Your task to perform on an android device: Open Chrome and go to the settings page Image 0: 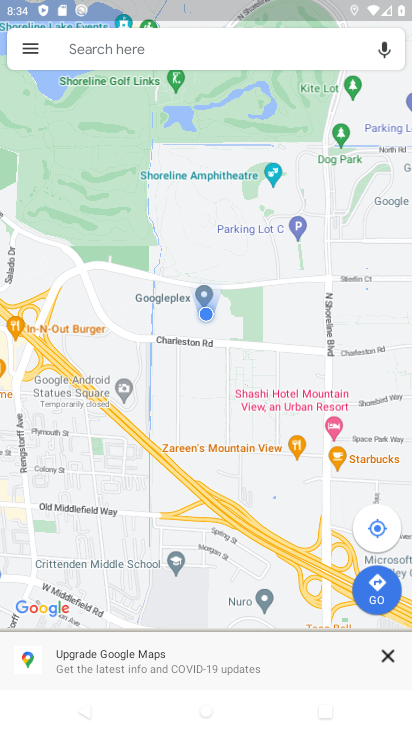
Step 0: drag from (278, 601) to (293, 425)
Your task to perform on an android device: Open Chrome and go to the settings page Image 1: 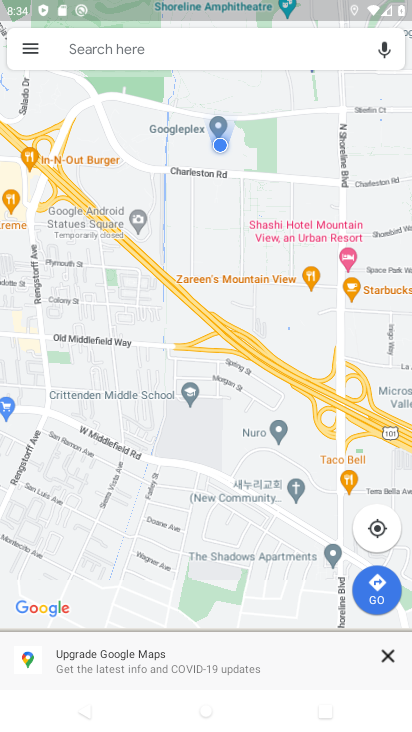
Step 1: press home button
Your task to perform on an android device: Open Chrome and go to the settings page Image 2: 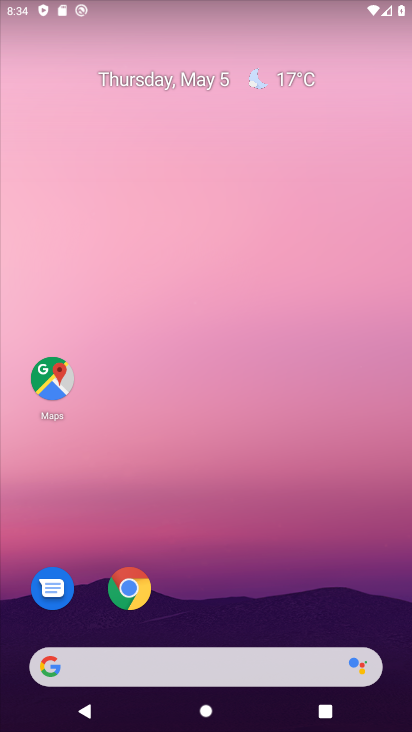
Step 2: click (115, 590)
Your task to perform on an android device: Open Chrome and go to the settings page Image 3: 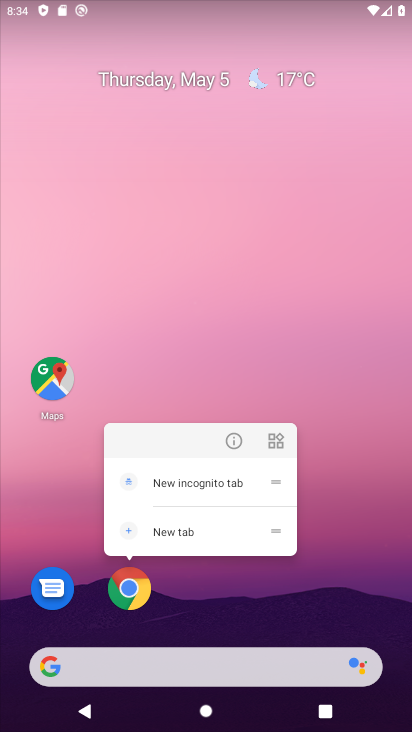
Step 3: click (232, 611)
Your task to perform on an android device: Open Chrome and go to the settings page Image 4: 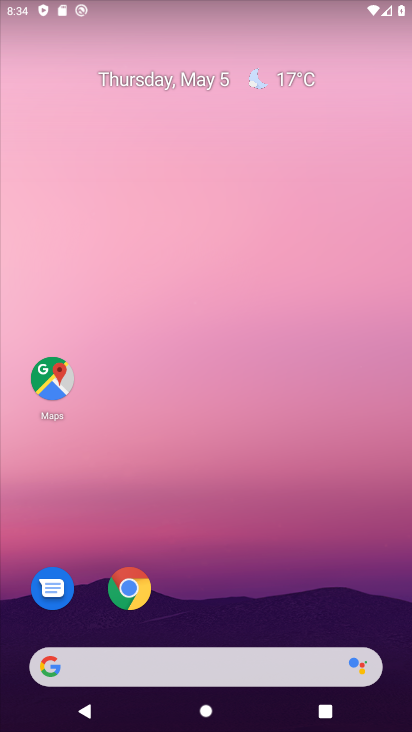
Step 4: drag from (265, 622) to (266, 216)
Your task to perform on an android device: Open Chrome and go to the settings page Image 5: 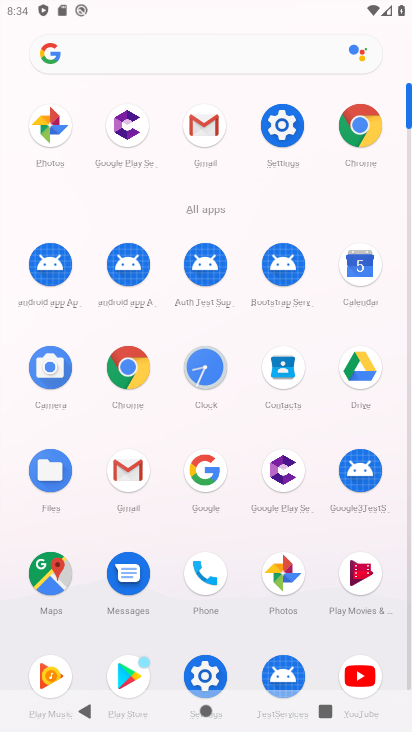
Step 5: click (134, 364)
Your task to perform on an android device: Open Chrome and go to the settings page Image 6: 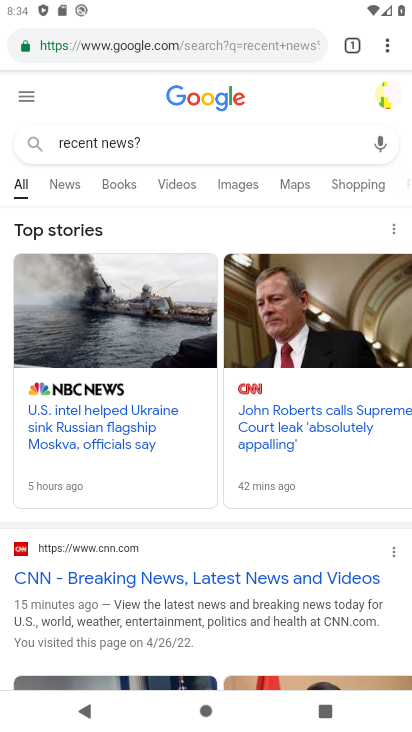
Step 6: click (380, 46)
Your task to perform on an android device: Open Chrome and go to the settings page Image 7: 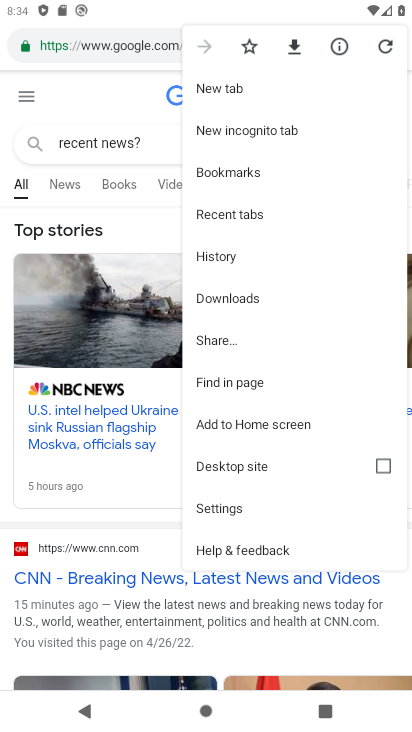
Step 7: click (255, 507)
Your task to perform on an android device: Open Chrome and go to the settings page Image 8: 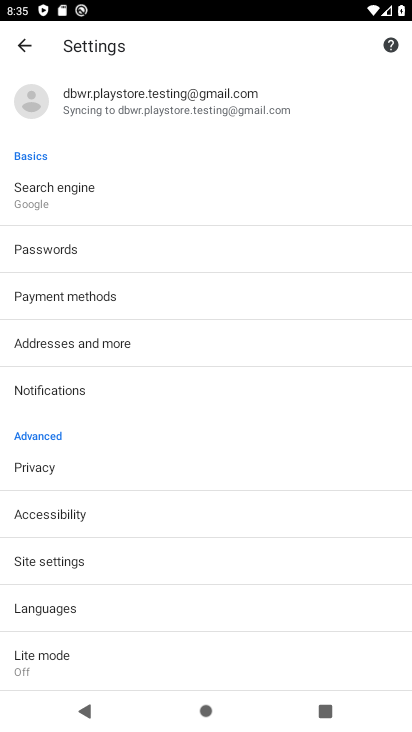
Step 8: task complete